Your task to perform on an android device: Go to display settings Image 0: 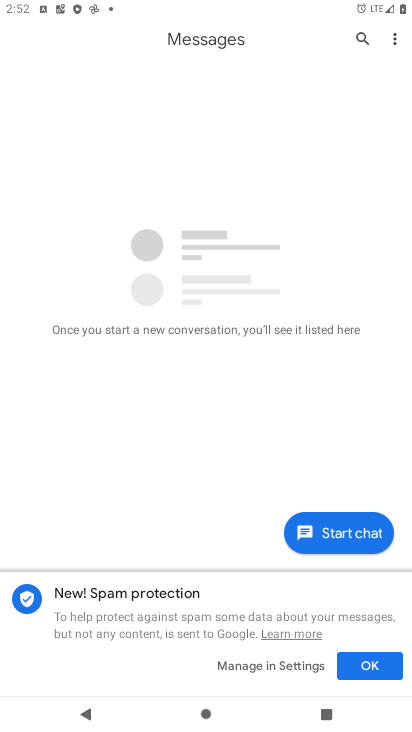
Step 0: press home button
Your task to perform on an android device: Go to display settings Image 1: 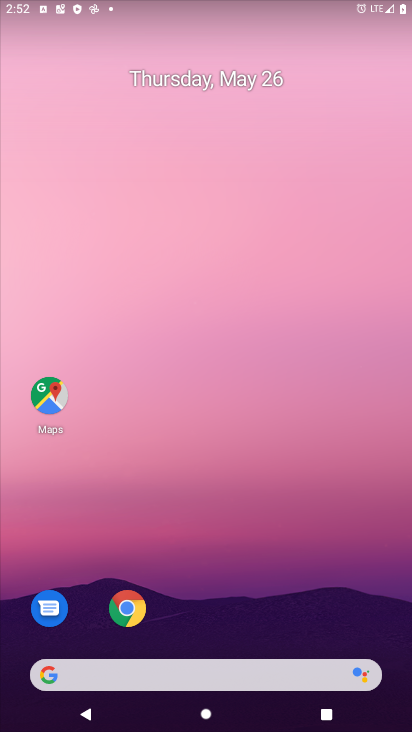
Step 1: drag from (390, 641) to (348, 213)
Your task to perform on an android device: Go to display settings Image 2: 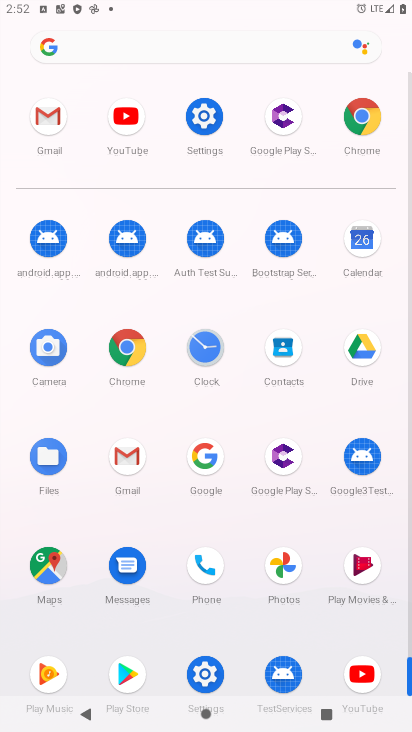
Step 2: click (203, 675)
Your task to perform on an android device: Go to display settings Image 3: 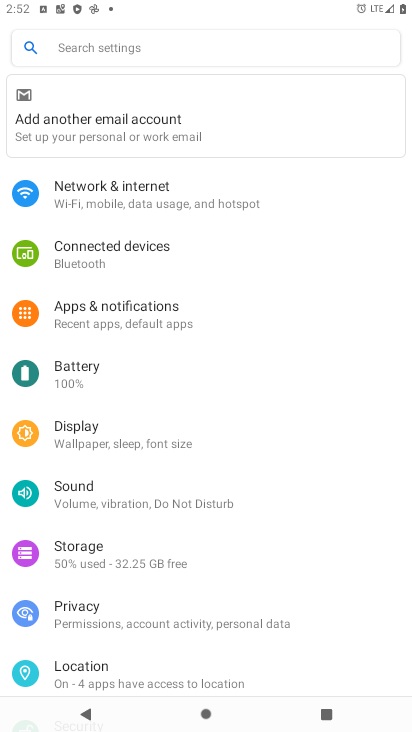
Step 3: click (81, 414)
Your task to perform on an android device: Go to display settings Image 4: 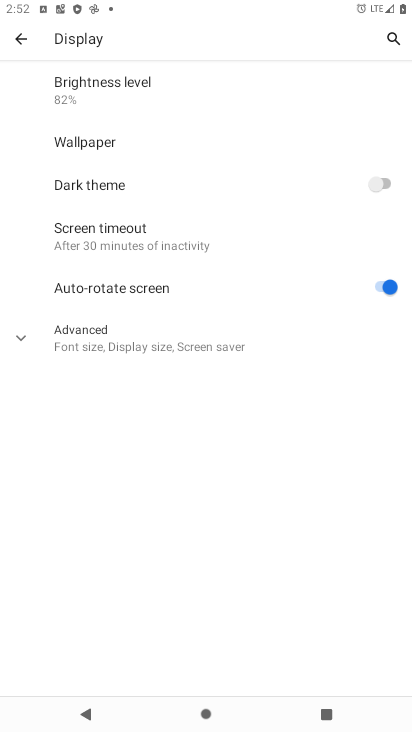
Step 4: click (6, 336)
Your task to perform on an android device: Go to display settings Image 5: 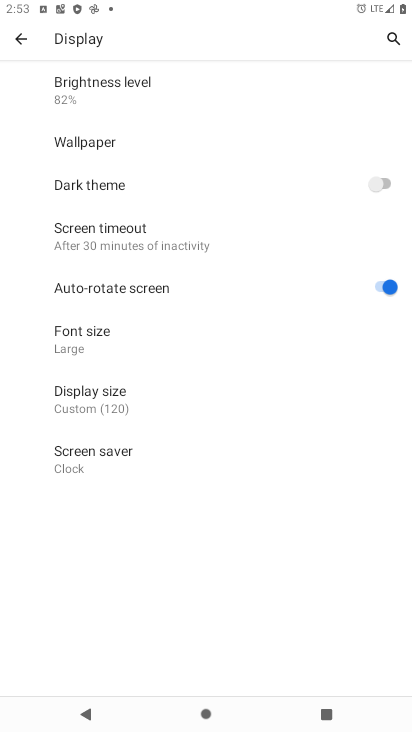
Step 5: task complete